Your task to perform on an android device: Go to eBay Image 0: 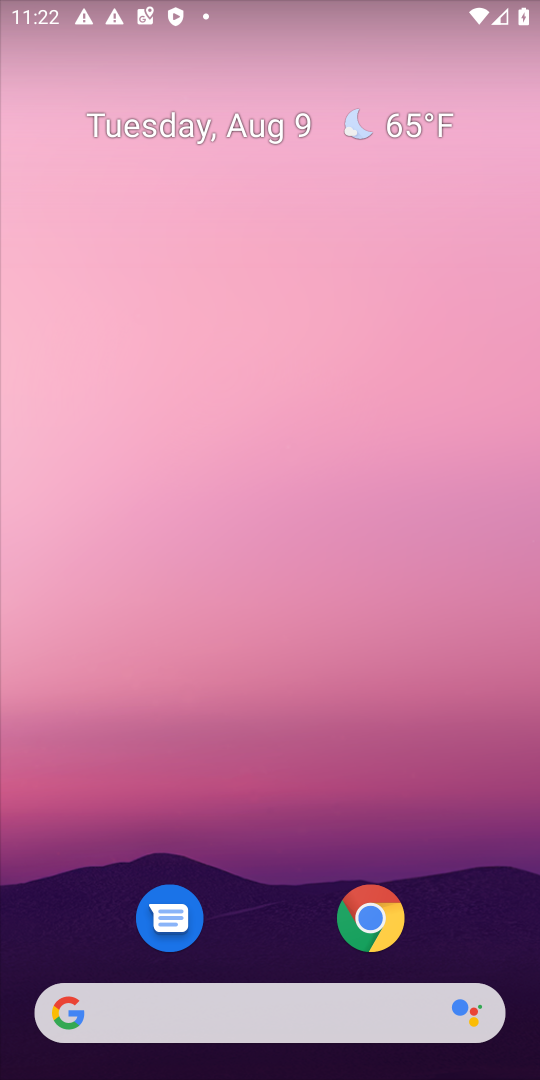
Step 0: drag from (268, 911) to (337, 200)
Your task to perform on an android device: Go to eBay Image 1: 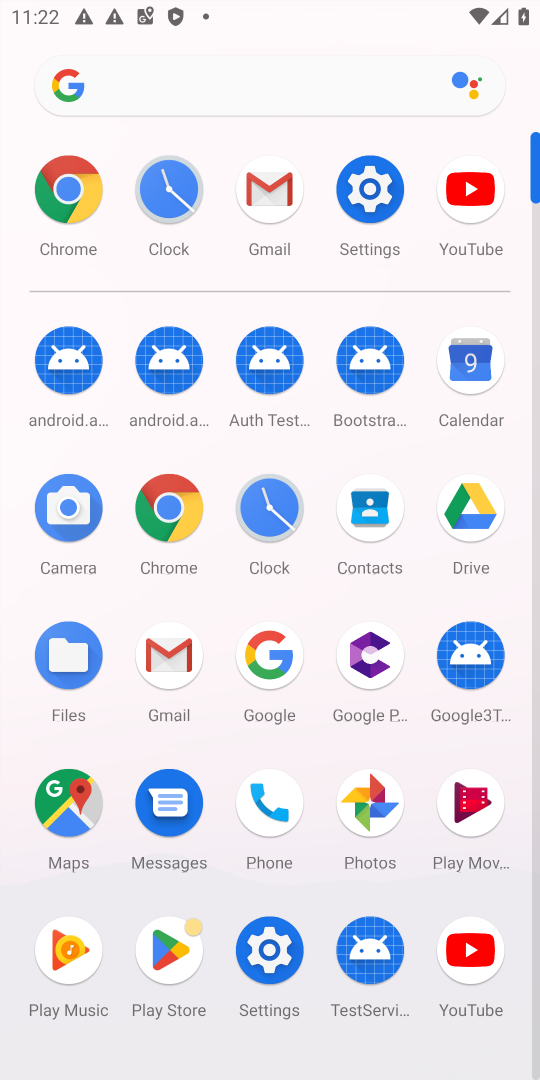
Step 1: click (167, 507)
Your task to perform on an android device: Go to eBay Image 2: 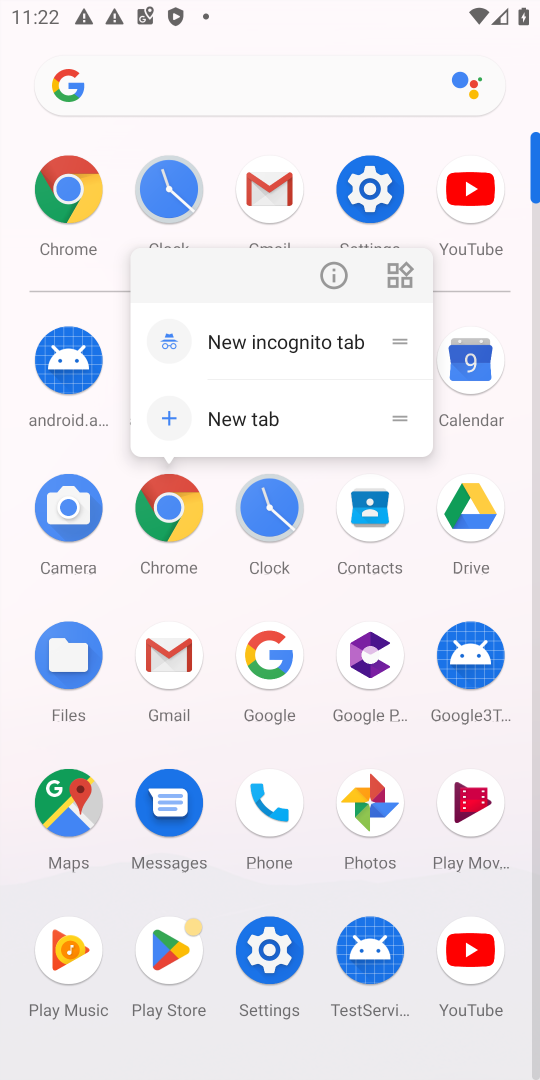
Step 2: click (167, 507)
Your task to perform on an android device: Go to eBay Image 3: 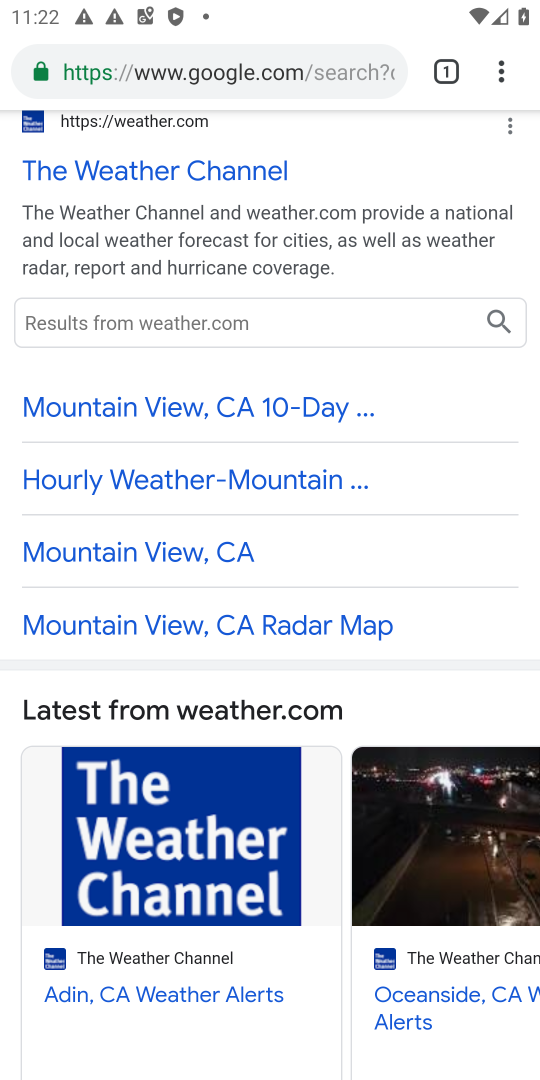
Step 3: click (269, 65)
Your task to perform on an android device: Go to eBay Image 4: 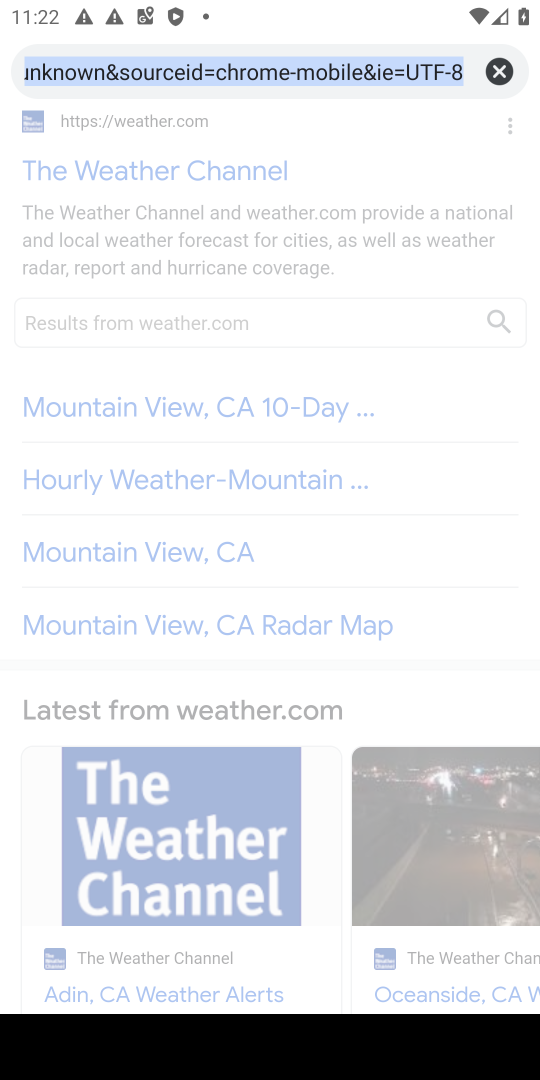
Step 4: type "ebay"
Your task to perform on an android device: Go to eBay Image 5: 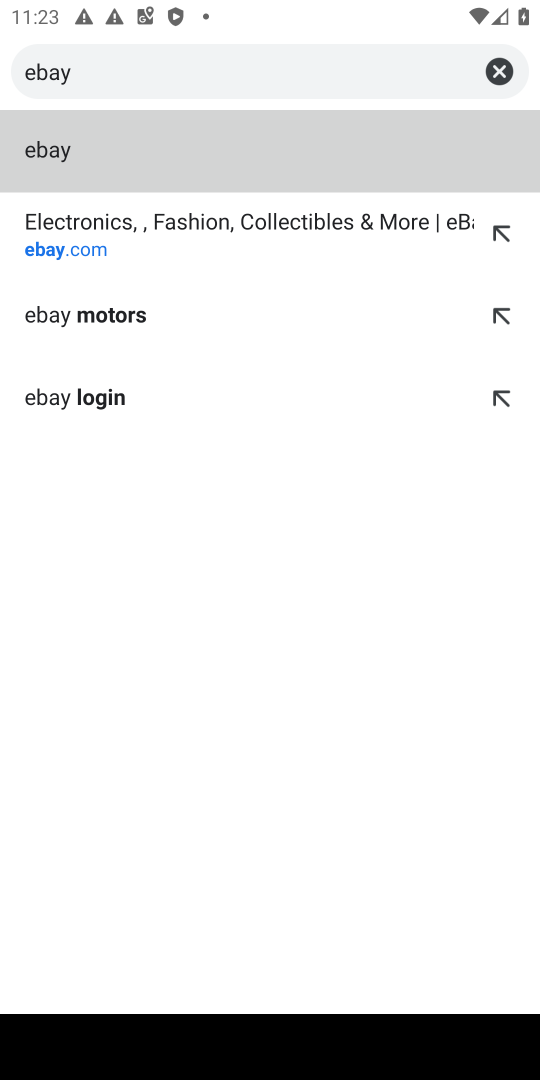
Step 5: click (63, 245)
Your task to perform on an android device: Go to eBay Image 6: 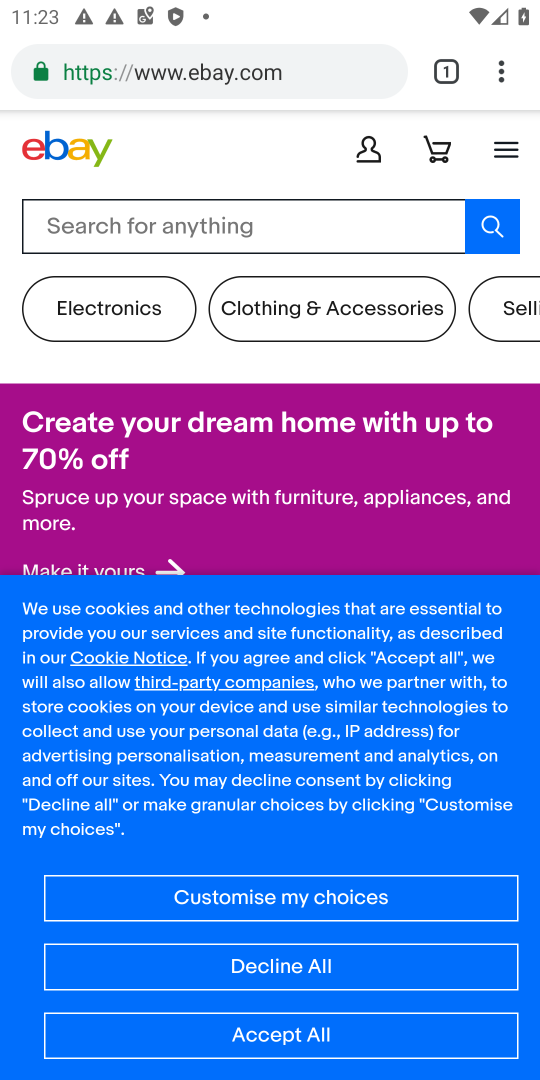
Step 6: task complete